Your task to perform on an android device: Go to CNN.com Image 0: 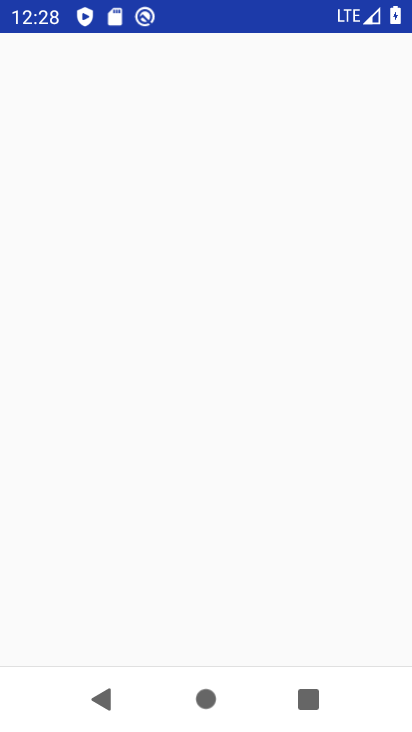
Step 0: click (260, 500)
Your task to perform on an android device: Go to CNN.com Image 1: 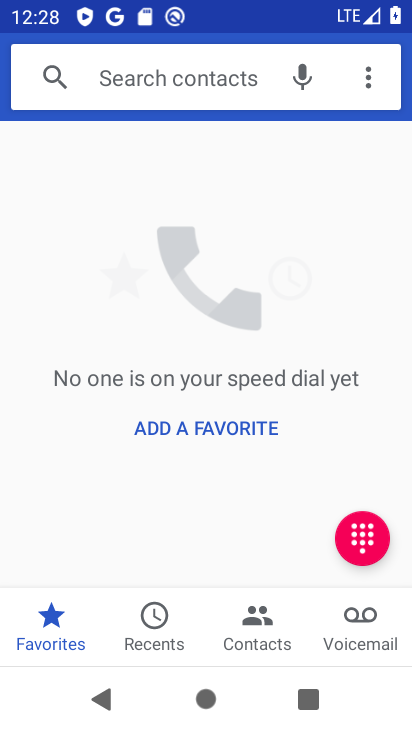
Step 1: press home button
Your task to perform on an android device: Go to CNN.com Image 2: 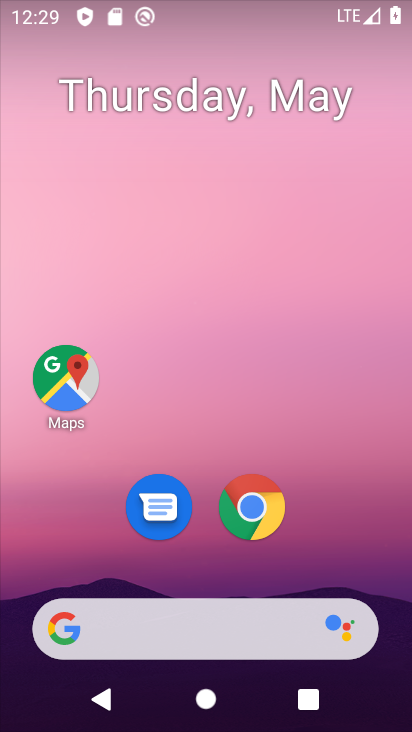
Step 2: click (236, 514)
Your task to perform on an android device: Go to CNN.com Image 3: 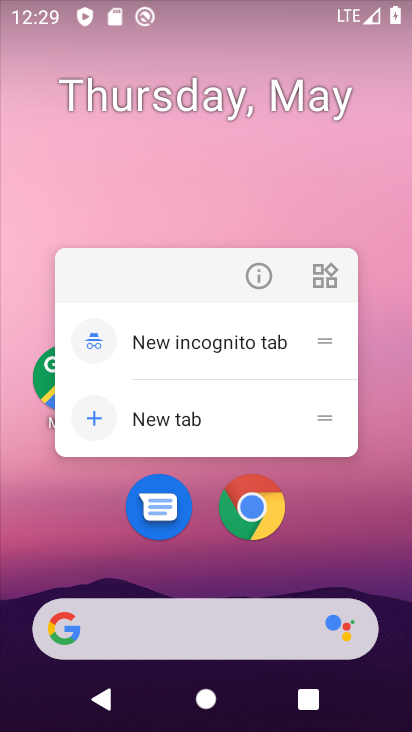
Step 3: click (236, 514)
Your task to perform on an android device: Go to CNN.com Image 4: 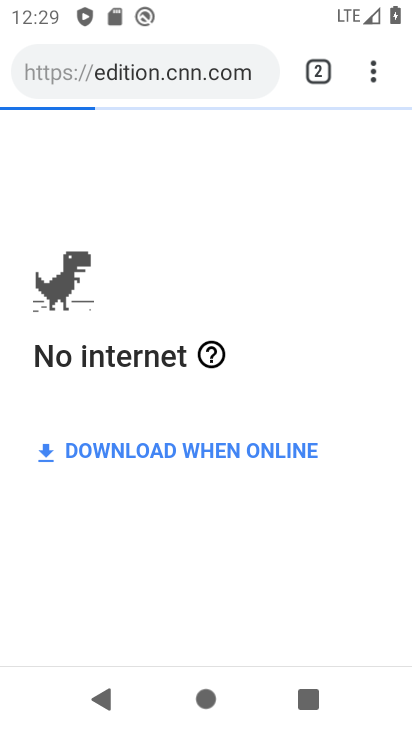
Step 4: click (322, 80)
Your task to perform on an android device: Go to CNN.com Image 5: 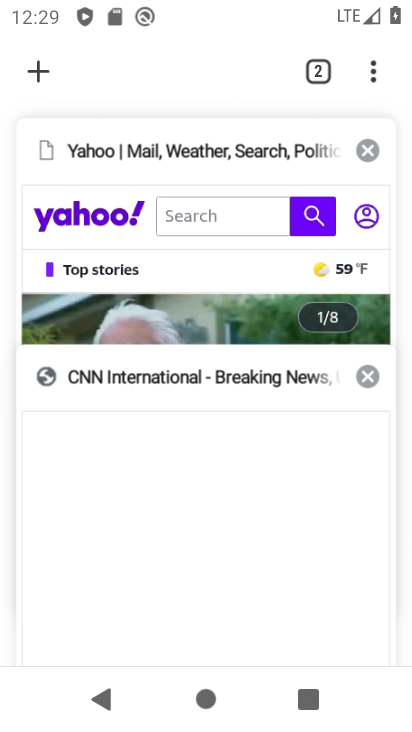
Step 5: click (127, 461)
Your task to perform on an android device: Go to CNN.com Image 6: 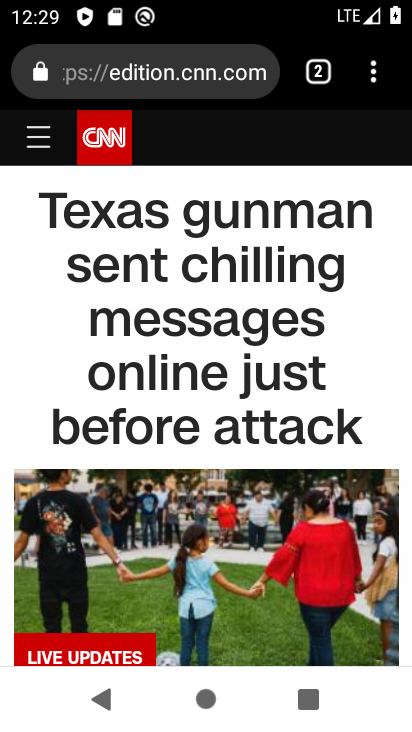
Step 6: task complete